Your task to perform on an android device: install app "Google Photos" Image 0: 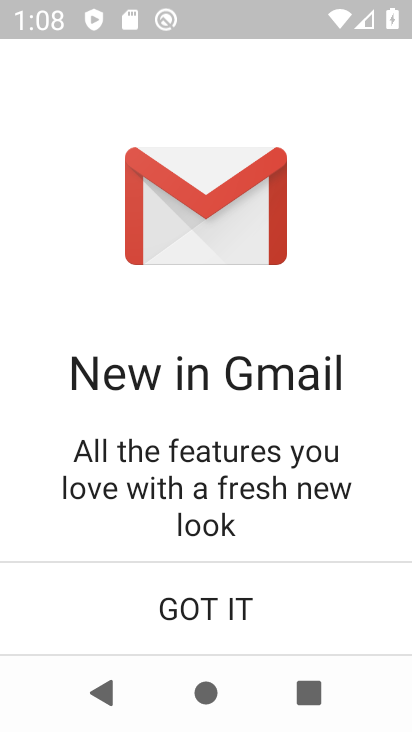
Step 0: press home button
Your task to perform on an android device: install app "Google Photos" Image 1: 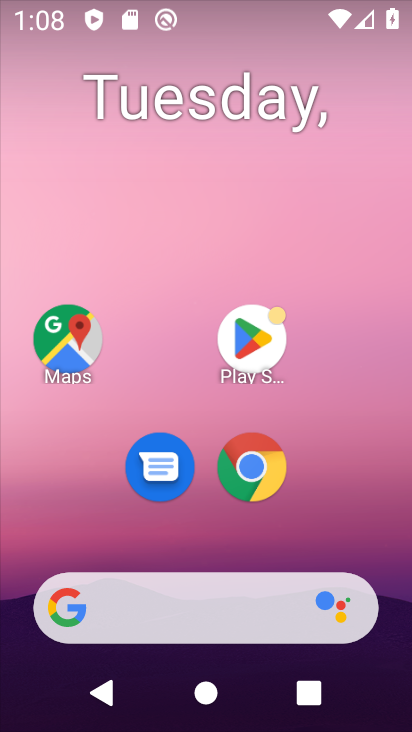
Step 1: click (259, 347)
Your task to perform on an android device: install app "Google Photos" Image 2: 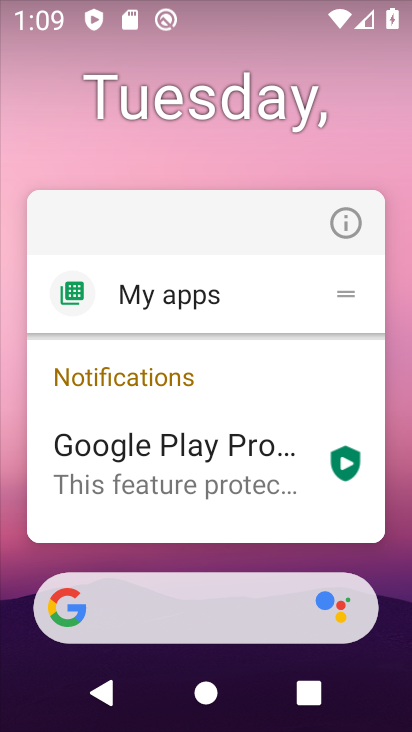
Step 2: click (391, 165)
Your task to perform on an android device: install app "Google Photos" Image 3: 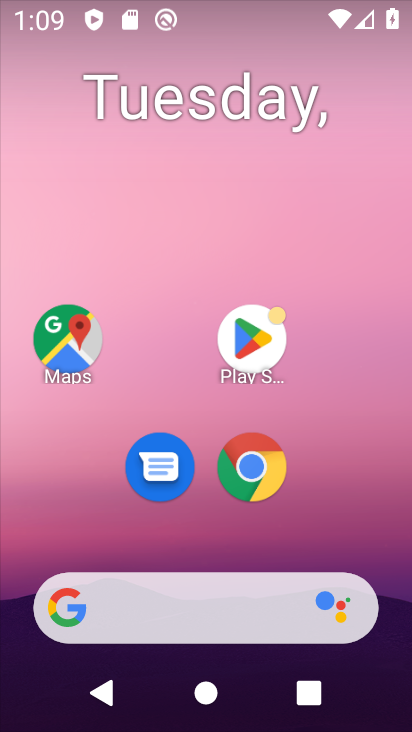
Step 3: click (250, 342)
Your task to perform on an android device: install app "Google Photos" Image 4: 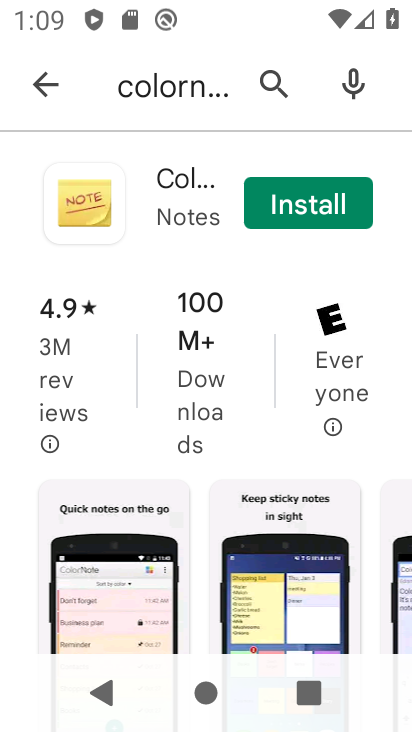
Step 4: click (273, 76)
Your task to perform on an android device: install app "Google Photos" Image 5: 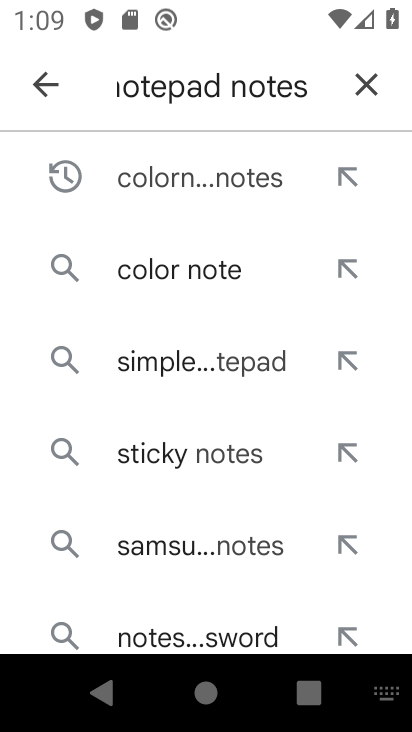
Step 5: click (367, 80)
Your task to perform on an android device: install app "Google Photos" Image 6: 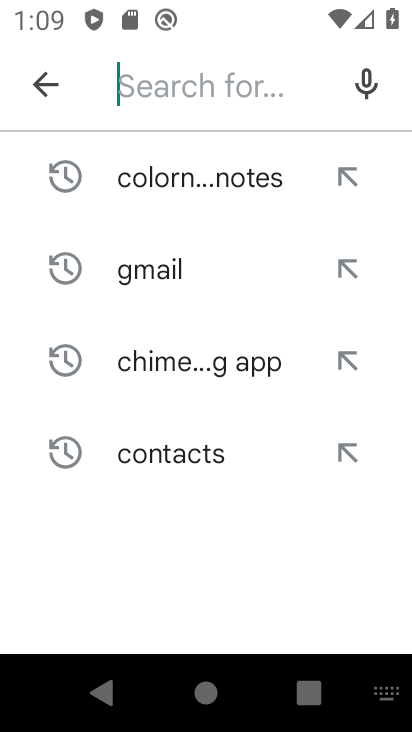
Step 6: type "Google Photos"
Your task to perform on an android device: install app "Google Photos" Image 7: 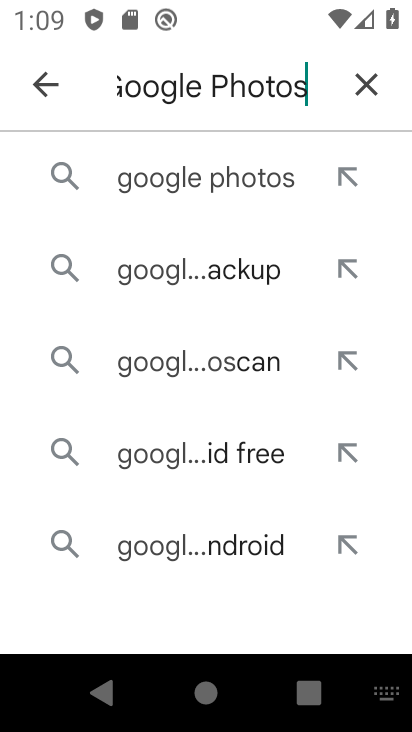
Step 7: click (220, 175)
Your task to perform on an android device: install app "Google Photos" Image 8: 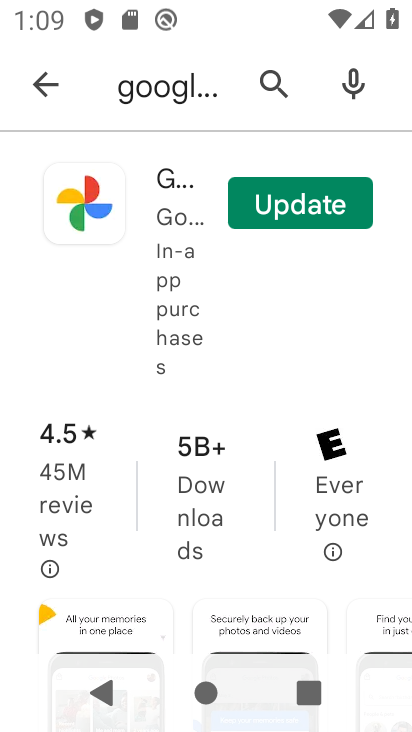
Step 8: click (113, 213)
Your task to perform on an android device: install app "Google Photos" Image 9: 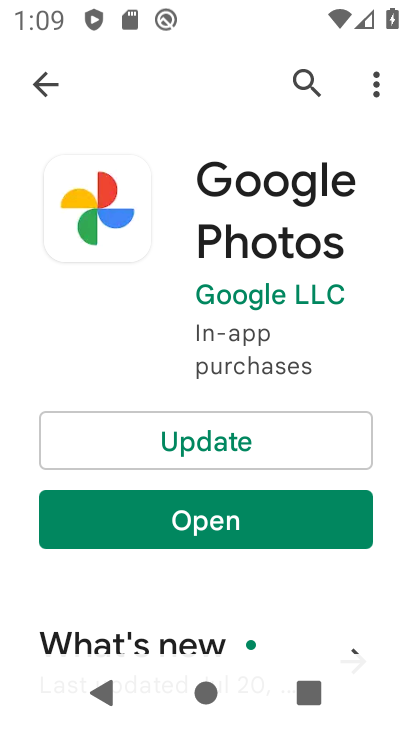
Step 9: task complete